Your task to perform on an android device: check android version Image 0: 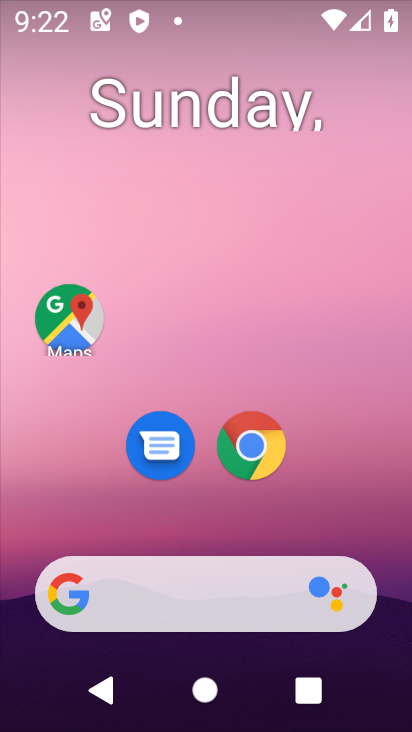
Step 0: drag from (387, 612) to (342, 10)
Your task to perform on an android device: check android version Image 1: 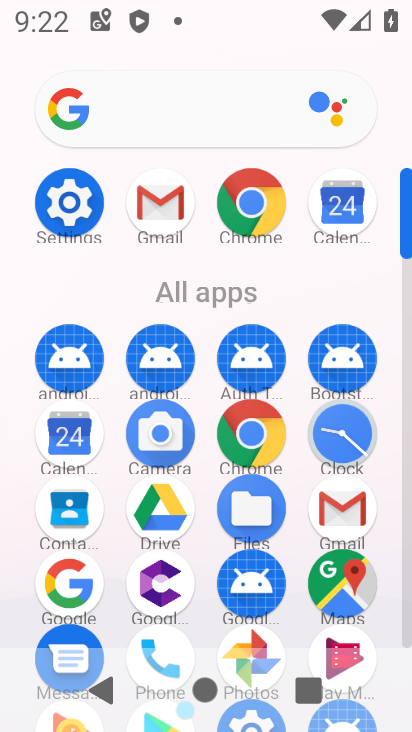
Step 1: click (409, 628)
Your task to perform on an android device: check android version Image 2: 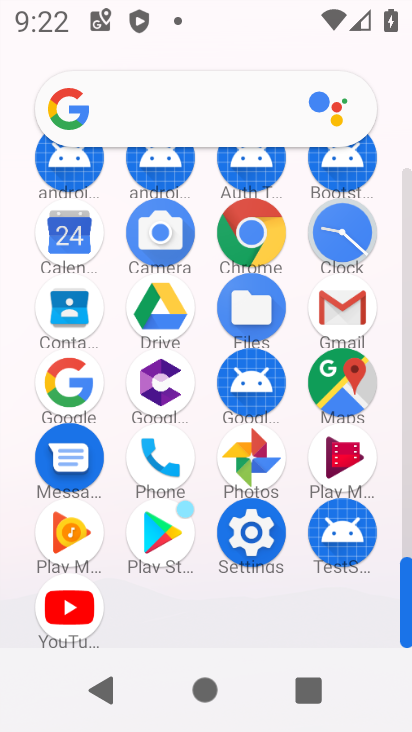
Step 2: click (246, 533)
Your task to perform on an android device: check android version Image 3: 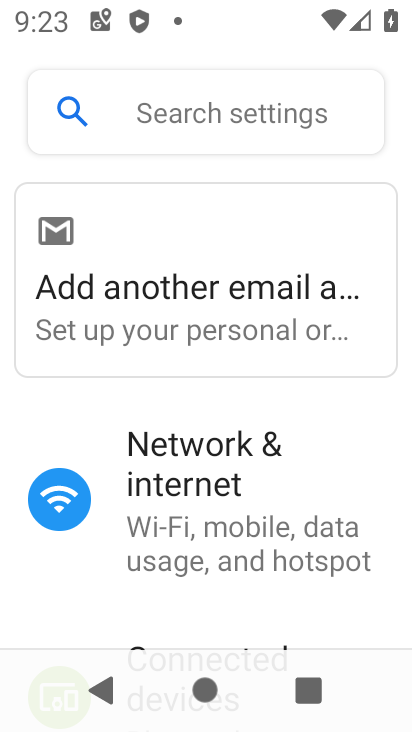
Step 3: drag from (313, 587) to (331, 94)
Your task to perform on an android device: check android version Image 4: 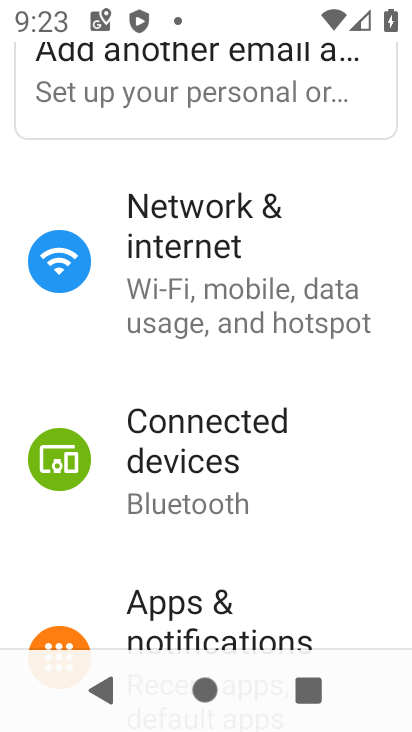
Step 4: drag from (190, 589) to (230, 165)
Your task to perform on an android device: check android version Image 5: 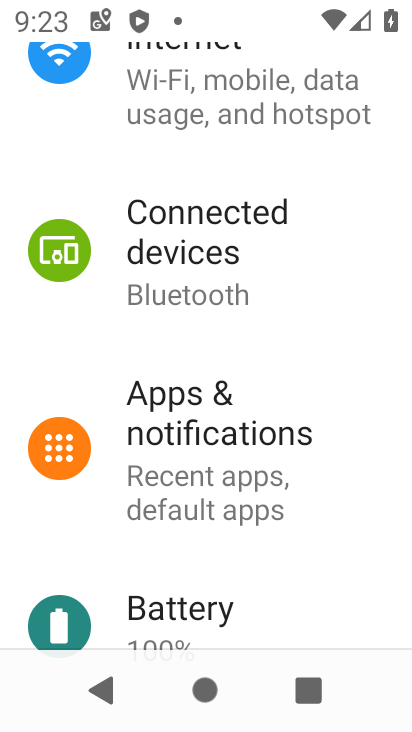
Step 5: click (336, 96)
Your task to perform on an android device: check android version Image 6: 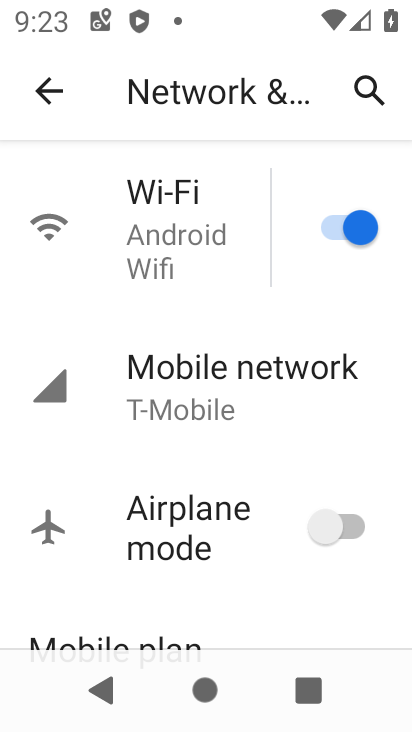
Step 6: drag from (145, 606) to (151, 358)
Your task to perform on an android device: check android version Image 7: 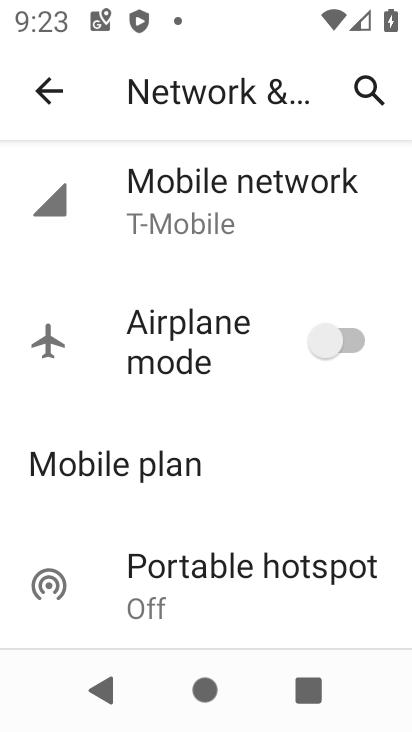
Step 7: press back button
Your task to perform on an android device: check android version Image 8: 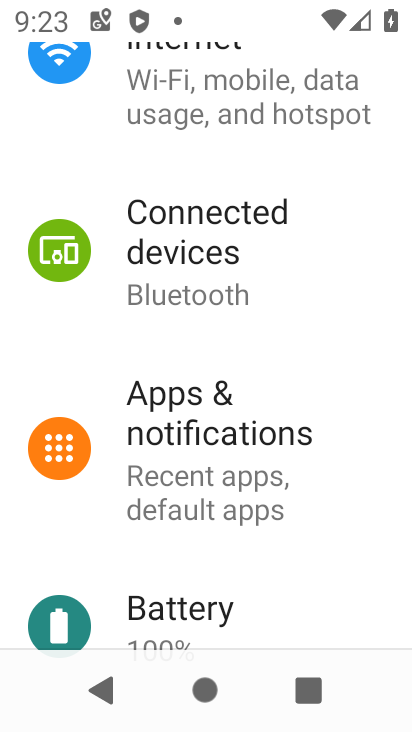
Step 8: drag from (277, 602) to (299, 82)
Your task to perform on an android device: check android version Image 9: 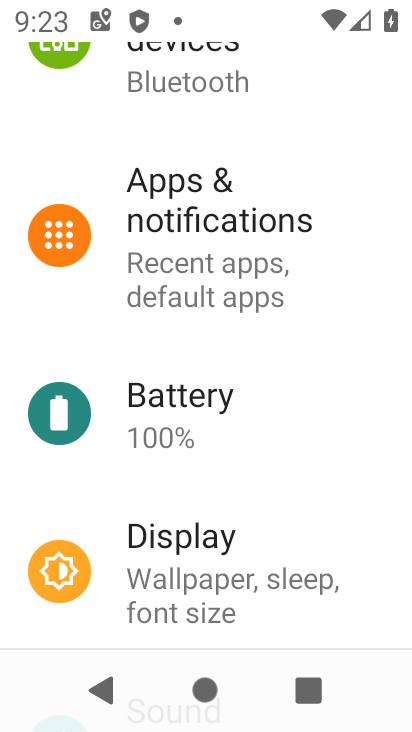
Step 9: drag from (290, 566) to (292, 45)
Your task to perform on an android device: check android version Image 10: 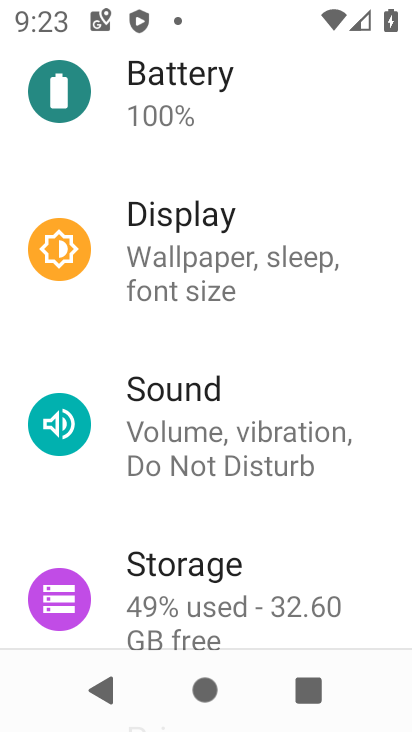
Step 10: drag from (282, 589) to (271, 132)
Your task to perform on an android device: check android version Image 11: 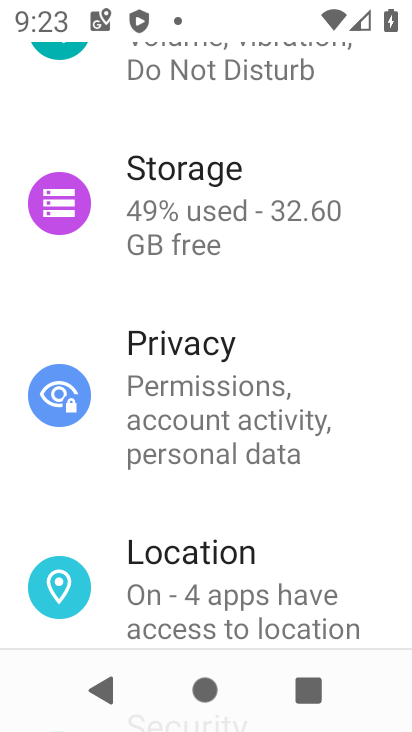
Step 11: drag from (234, 541) to (230, 231)
Your task to perform on an android device: check android version Image 12: 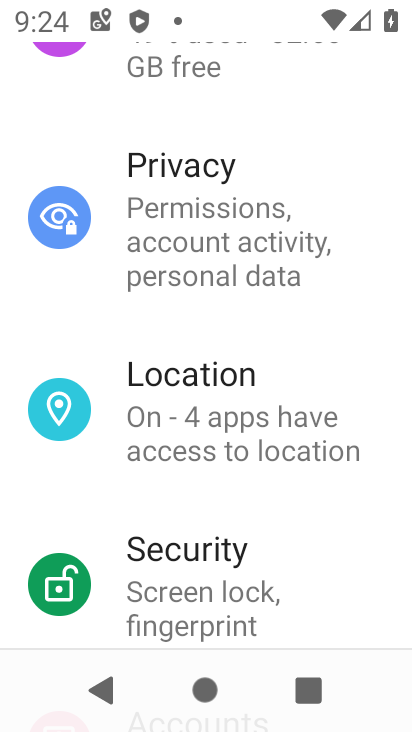
Step 12: drag from (258, 605) to (238, 218)
Your task to perform on an android device: check android version Image 13: 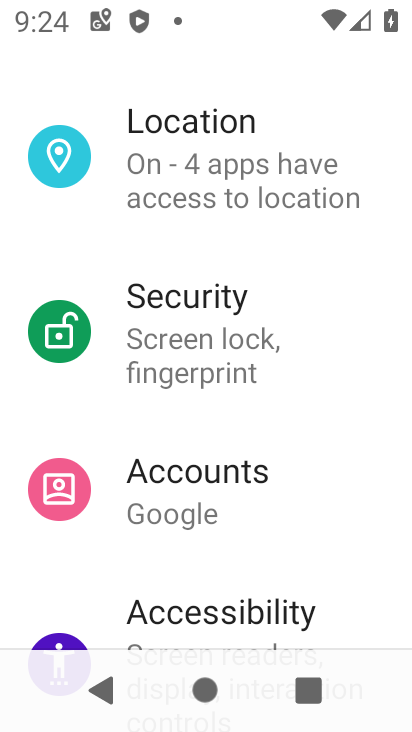
Step 13: drag from (273, 614) to (271, 213)
Your task to perform on an android device: check android version Image 14: 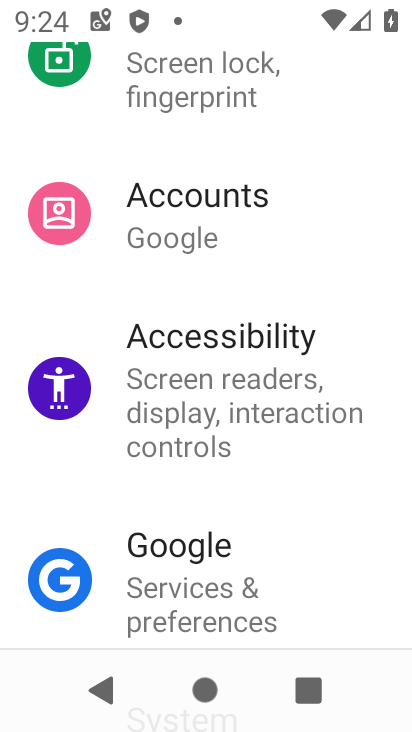
Step 14: drag from (348, 601) to (358, 85)
Your task to perform on an android device: check android version Image 15: 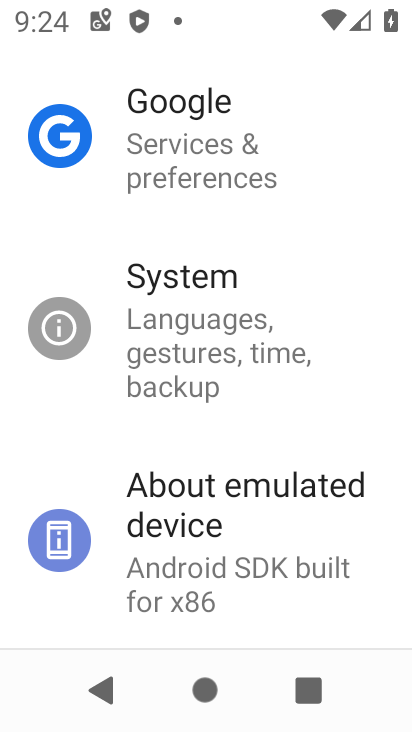
Step 15: click (184, 559)
Your task to perform on an android device: check android version Image 16: 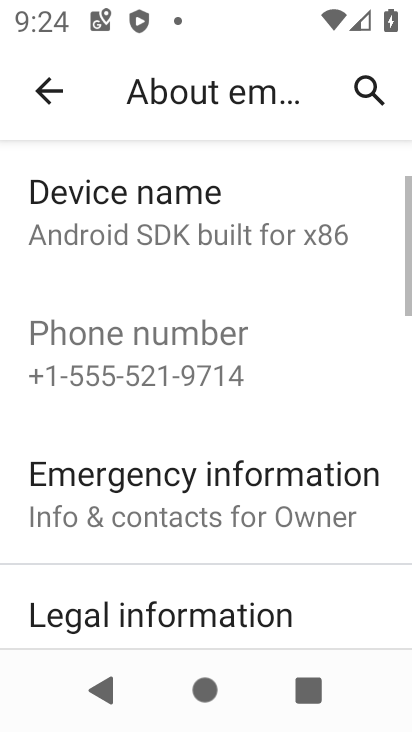
Step 16: drag from (237, 573) to (228, 198)
Your task to perform on an android device: check android version Image 17: 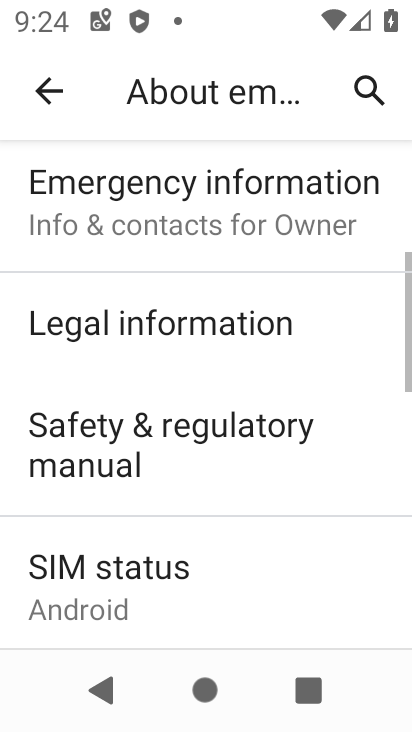
Step 17: drag from (205, 540) to (185, 209)
Your task to perform on an android device: check android version Image 18: 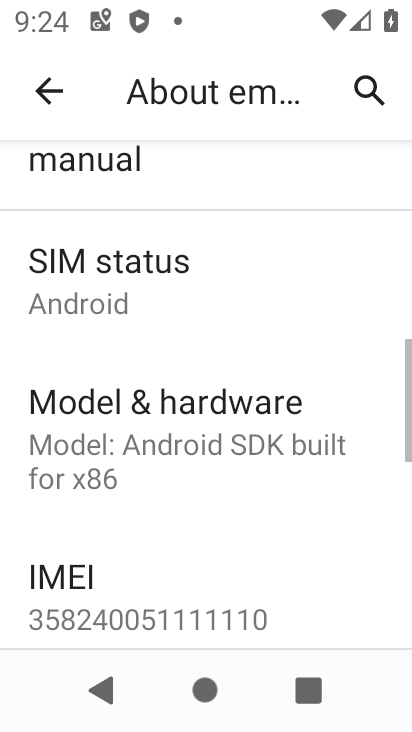
Step 18: drag from (241, 567) to (216, 244)
Your task to perform on an android device: check android version Image 19: 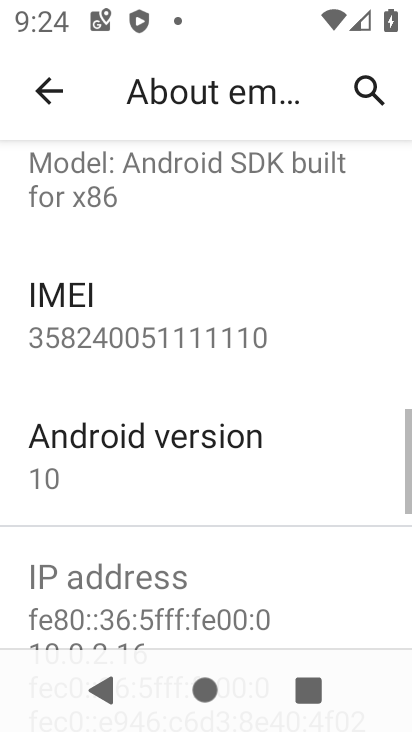
Step 19: click (117, 457)
Your task to perform on an android device: check android version Image 20: 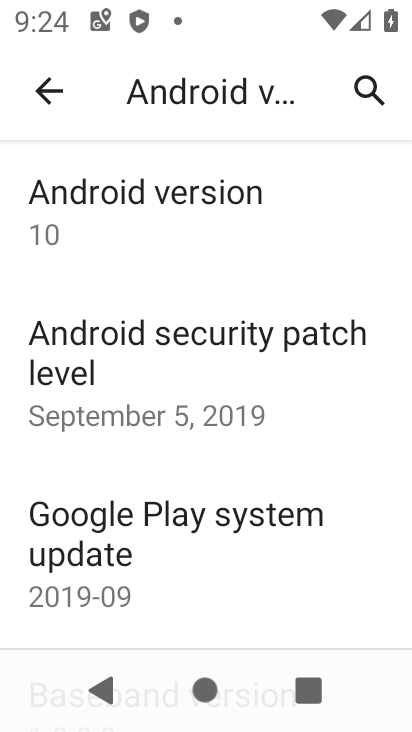
Step 20: task complete